Your task to perform on an android device: move a message to another label in the gmail app Image 0: 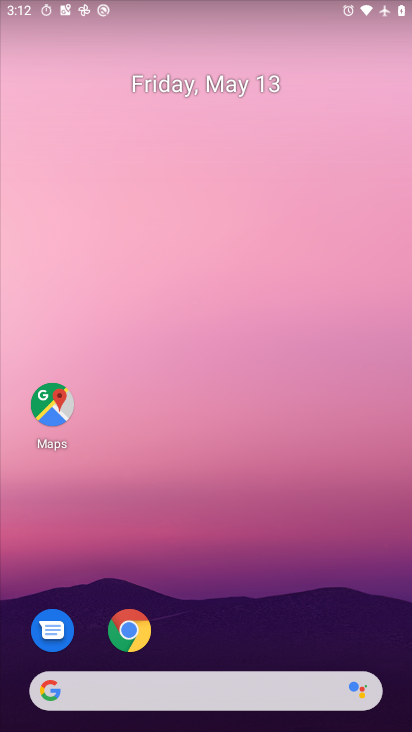
Step 0: drag from (283, 639) to (327, 176)
Your task to perform on an android device: move a message to another label in the gmail app Image 1: 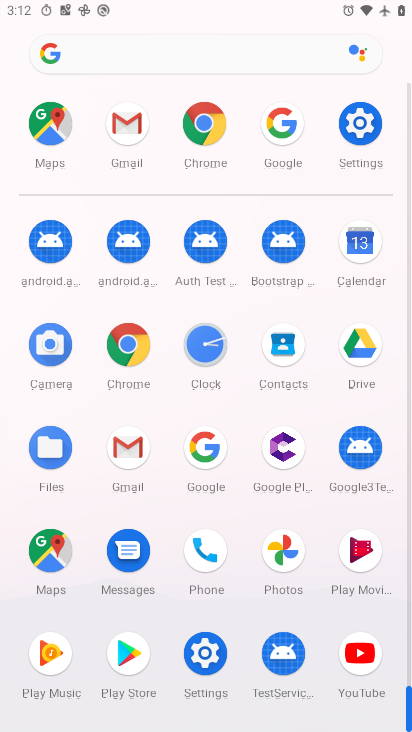
Step 1: click (131, 463)
Your task to perform on an android device: move a message to another label in the gmail app Image 2: 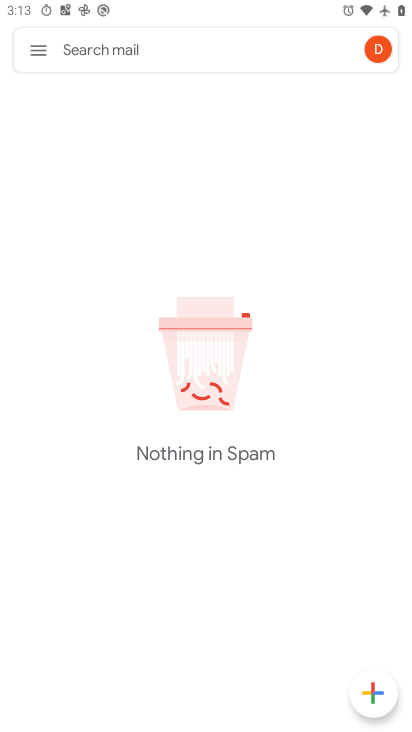
Step 2: task complete